Your task to perform on an android device: Search for Italian restaurants on Maps Image 0: 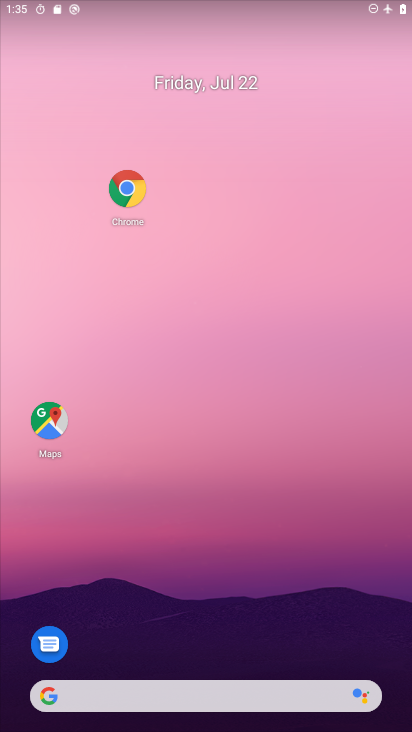
Step 0: click (61, 423)
Your task to perform on an android device: Search for Italian restaurants on Maps Image 1: 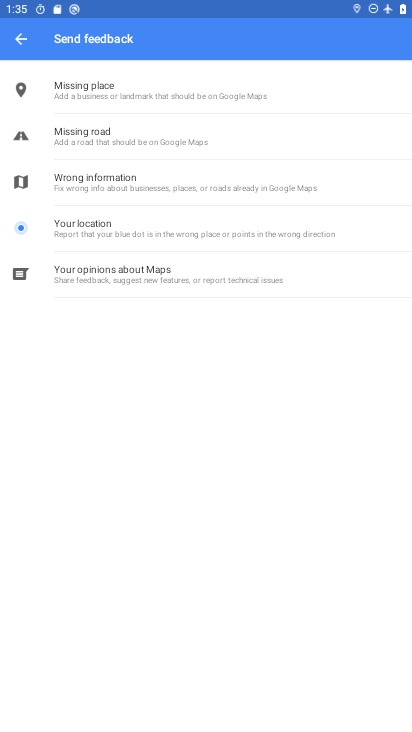
Step 1: click (25, 46)
Your task to perform on an android device: Search for Italian restaurants on Maps Image 2: 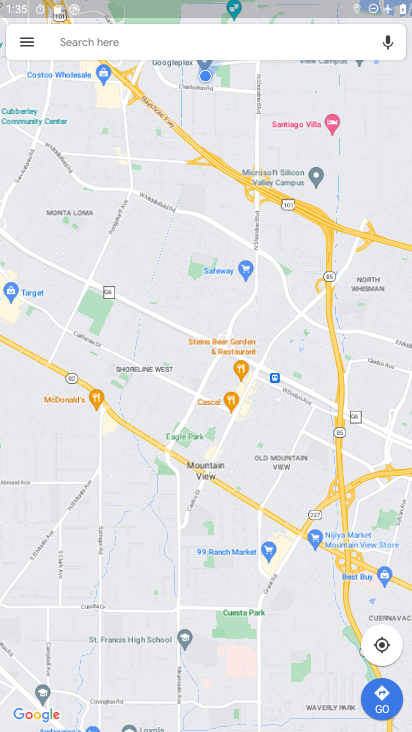
Step 2: click (147, 38)
Your task to perform on an android device: Search for Italian restaurants on Maps Image 3: 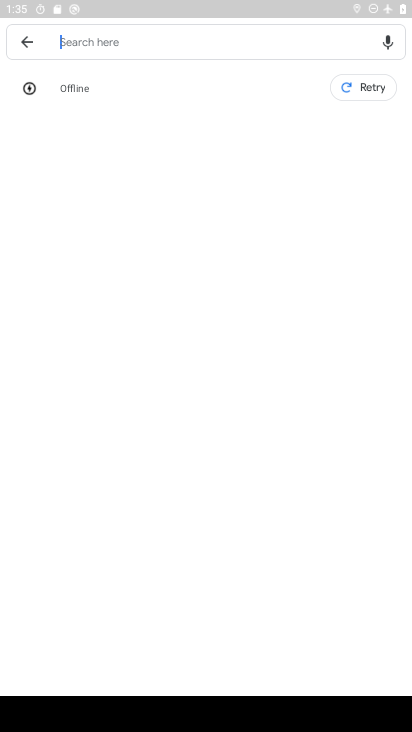
Step 3: type "italian restaurant"
Your task to perform on an android device: Search for Italian restaurants on Maps Image 4: 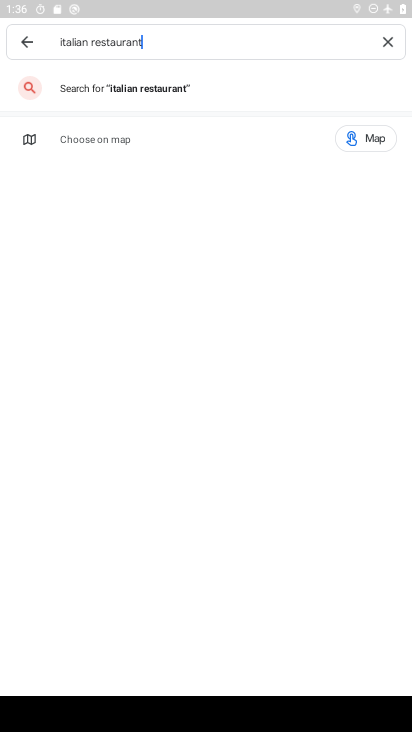
Step 4: click (263, 90)
Your task to perform on an android device: Search for Italian restaurants on Maps Image 5: 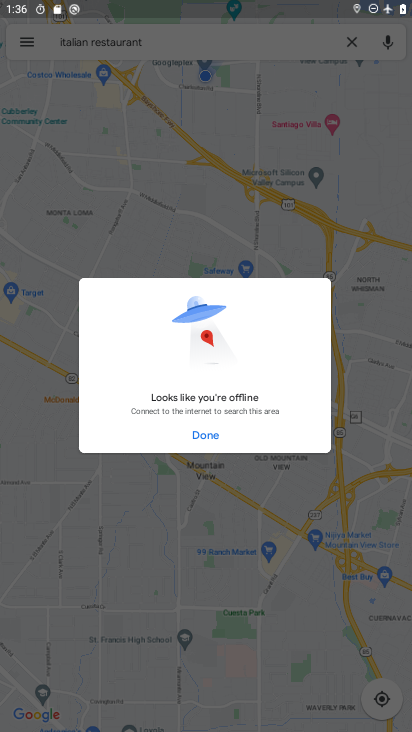
Step 5: drag from (145, 253) to (162, 612)
Your task to perform on an android device: Search for Italian restaurants on Maps Image 6: 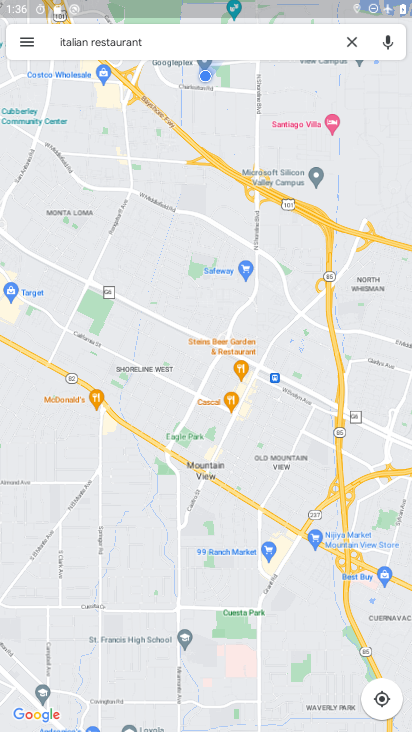
Step 6: drag from (207, 4) to (24, 332)
Your task to perform on an android device: Search for Italian restaurants on Maps Image 7: 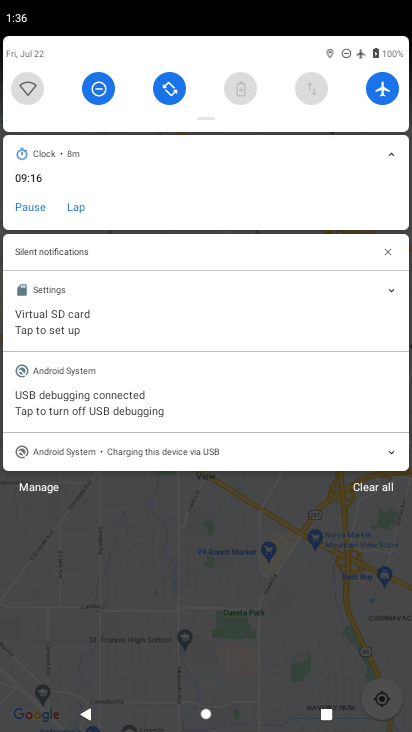
Step 7: click (383, 85)
Your task to perform on an android device: Search for Italian restaurants on Maps Image 8: 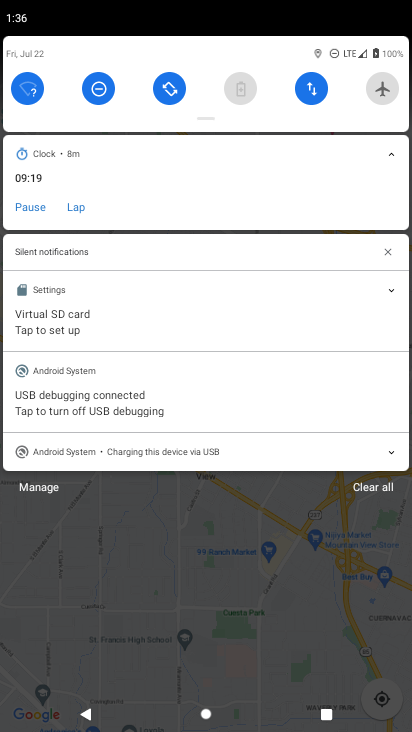
Step 8: task complete